Your task to perform on an android device: see creations saved in the google photos Image 0: 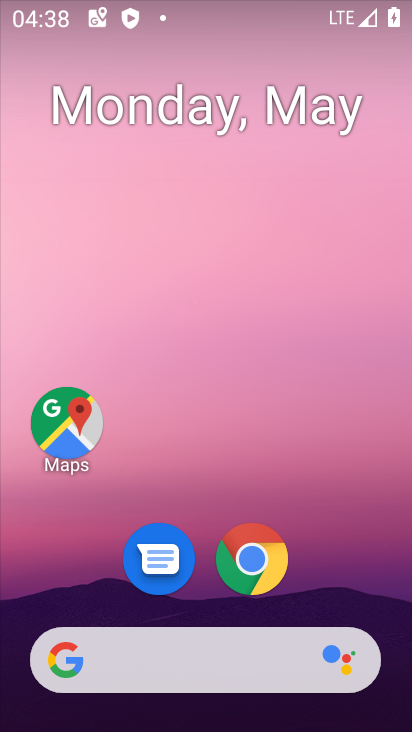
Step 0: drag from (321, 635) to (311, 77)
Your task to perform on an android device: see creations saved in the google photos Image 1: 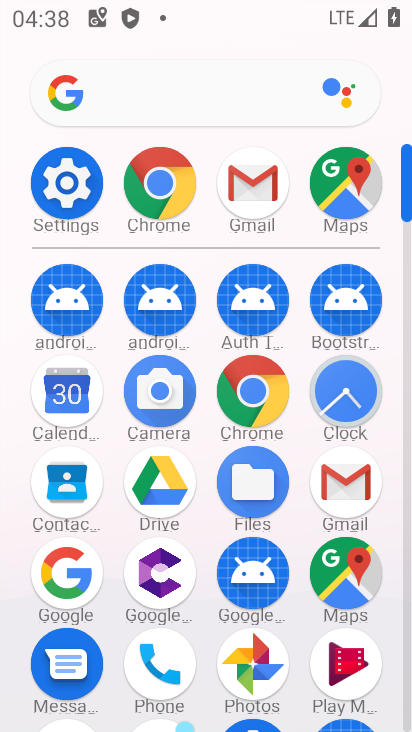
Step 1: click (262, 654)
Your task to perform on an android device: see creations saved in the google photos Image 2: 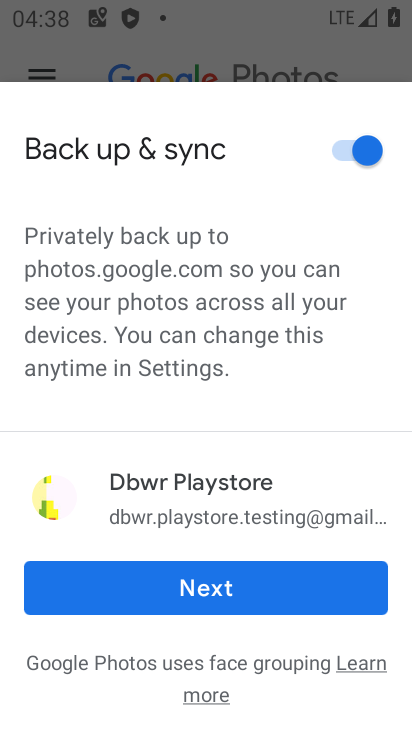
Step 2: click (261, 592)
Your task to perform on an android device: see creations saved in the google photos Image 3: 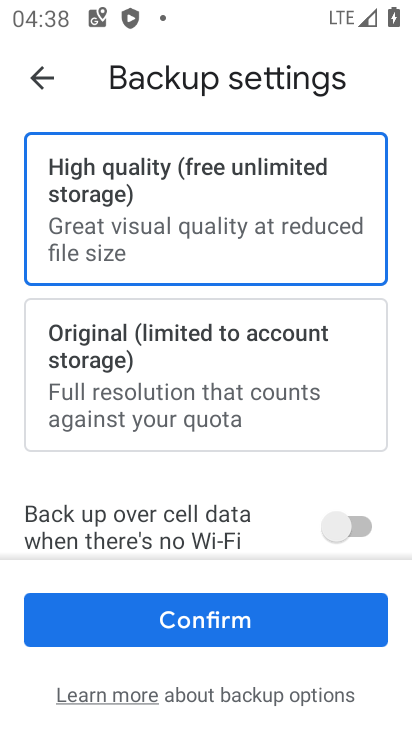
Step 3: click (244, 618)
Your task to perform on an android device: see creations saved in the google photos Image 4: 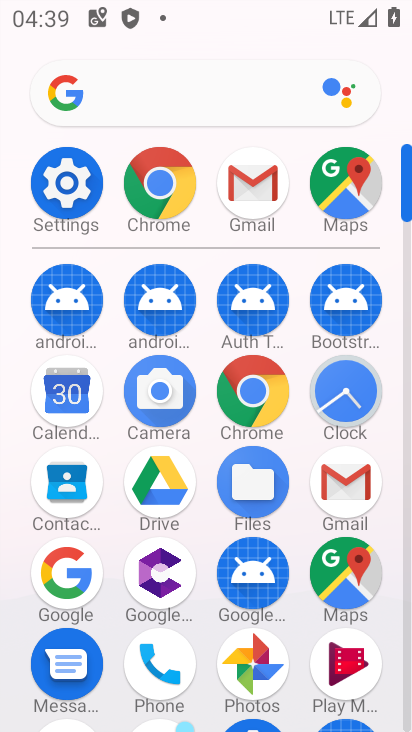
Step 4: click (252, 660)
Your task to perform on an android device: see creations saved in the google photos Image 5: 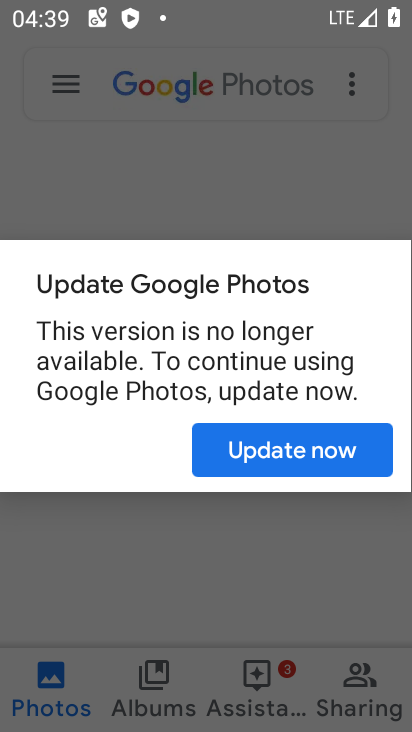
Step 5: click (299, 450)
Your task to perform on an android device: see creations saved in the google photos Image 6: 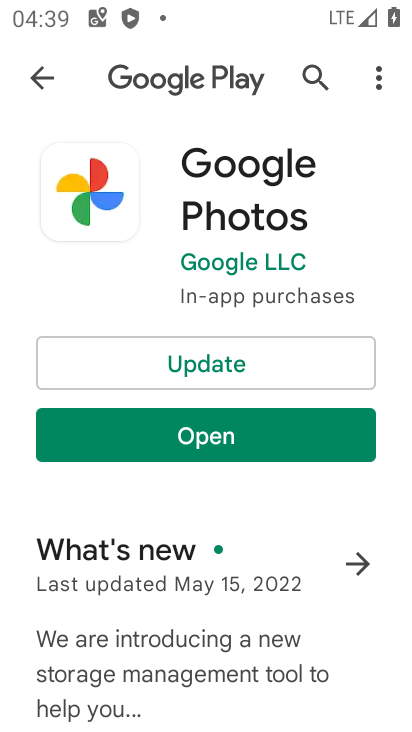
Step 6: click (276, 346)
Your task to perform on an android device: see creations saved in the google photos Image 7: 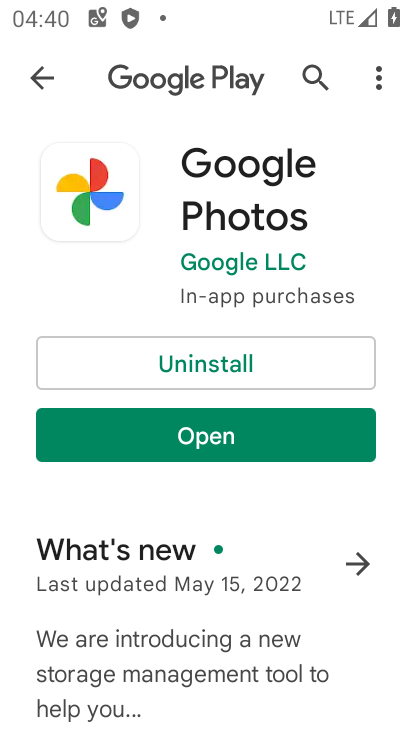
Step 7: click (259, 438)
Your task to perform on an android device: see creations saved in the google photos Image 8: 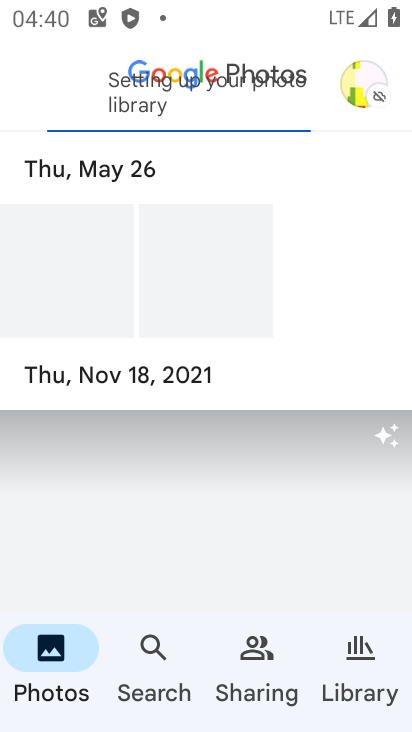
Step 8: click (273, 676)
Your task to perform on an android device: see creations saved in the google photos Image 9: 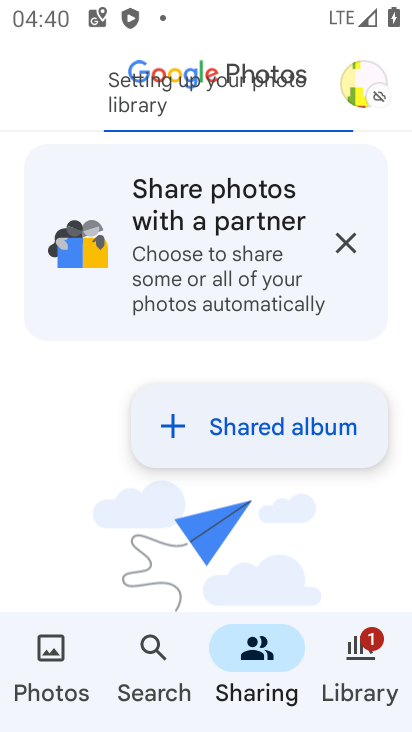
Step 9: click (380, 654)
Your task to perform on an android device: see creations saved in the google photos Image 10: 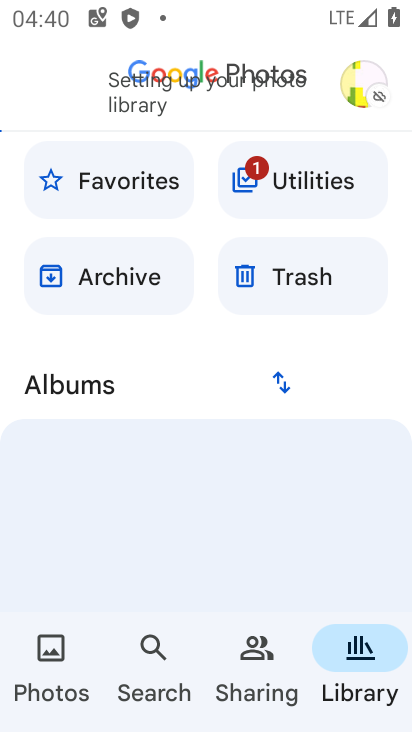
Step 10: task complete